Your task to perform on an android device: turn off location Image 0: 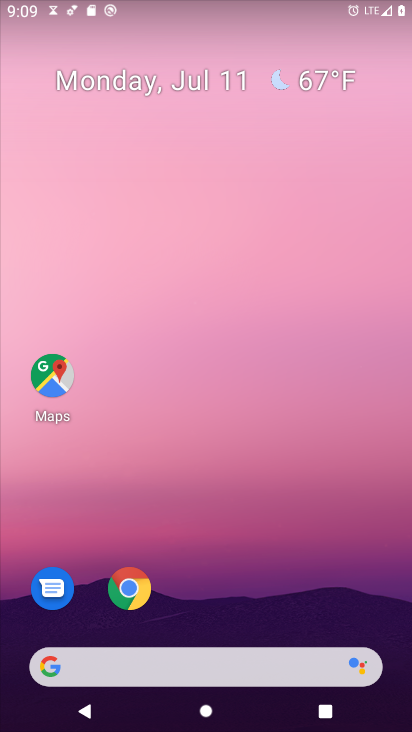
Step 0: drag from (285, 554) to (313, 213)
Your task to perform on an android device: turn off location Image 1: 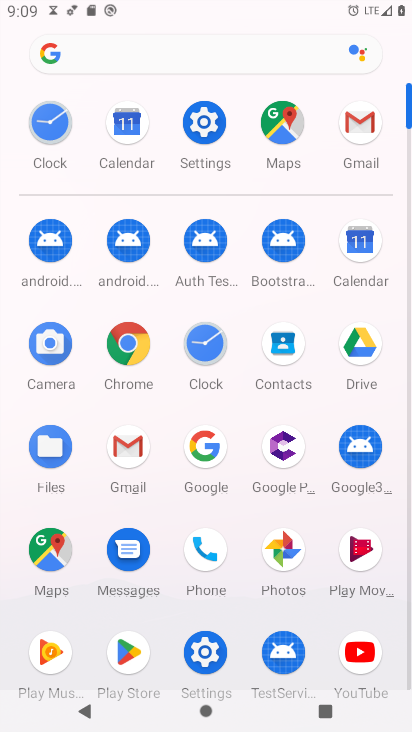
Step 1: click (210, 127)
Your task to perform on an android device: turn off location Image 2: 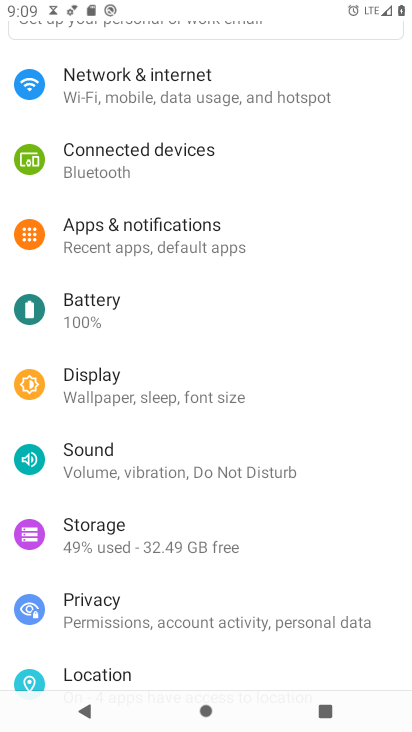
Step 2: click (113, 660)
Your task to perform on an android device: turn off location Image 3: 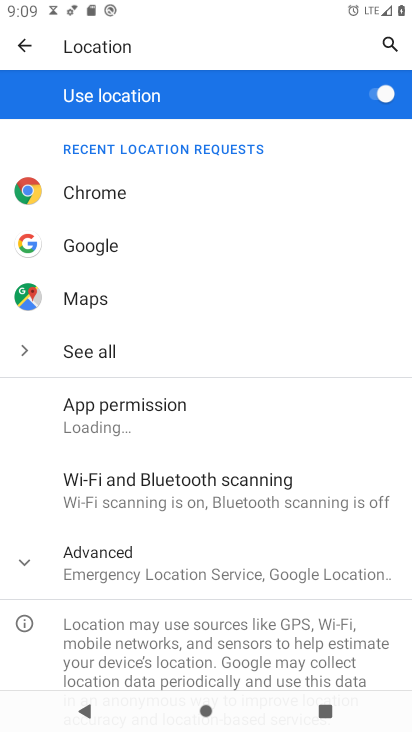
Step 3: click (384, 88)
Your task to perform on an android device: turn off location Image 4: 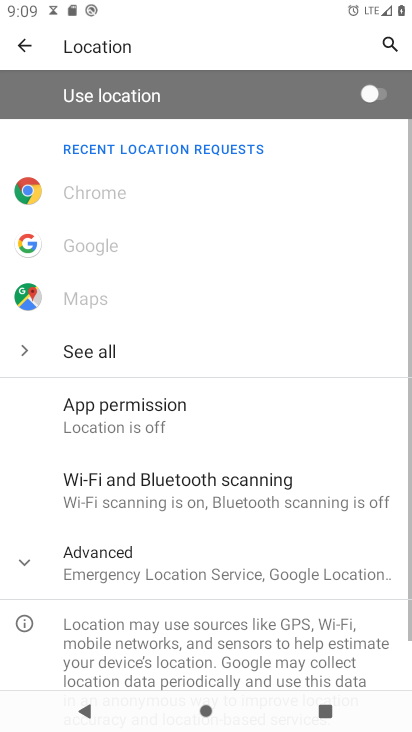
Step 4: task complete